Your task to perform on an android device: Open Google Maps Image 0: 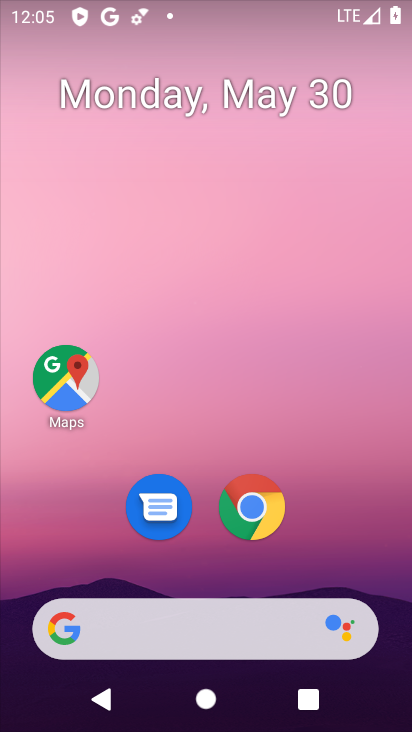
Step 0: drag from (324, 557) to (306, 69)
Your task to perform on an android device: Open Google Maps Image 1: 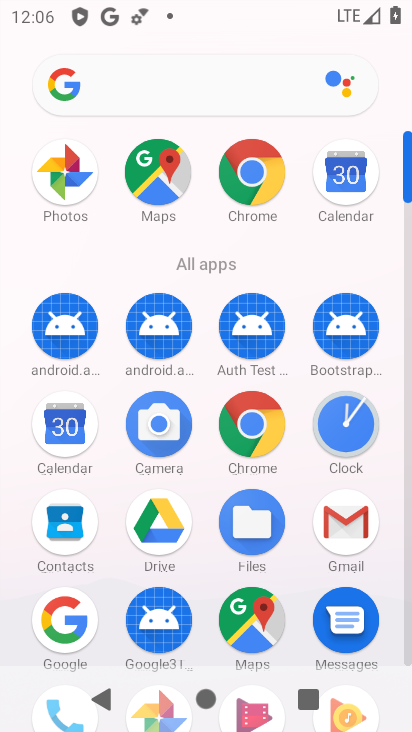
Step 1: drag from (193, 303) to (182, 22)
Your task to perform on an android device: Open Google Maps Image 2: 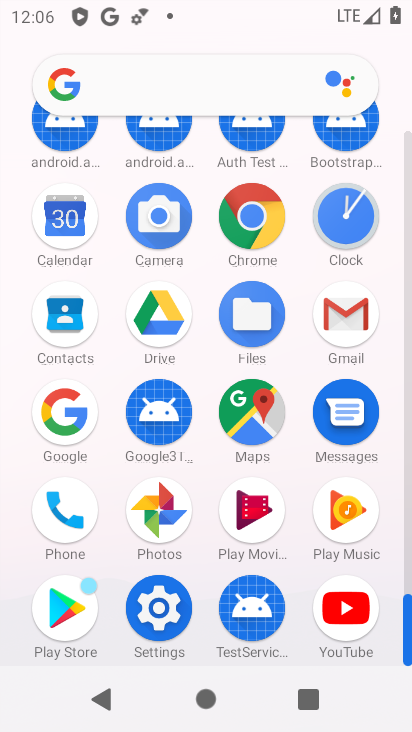
Step 2: click (239, 419)
Your task to perform on an android device: Open Google Maps Image 3: 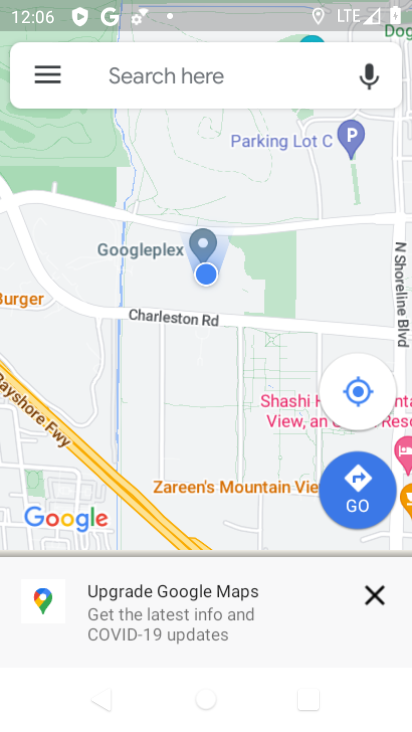
Step 3: click (374, 593)
Your task to perform on an android device: Open Google Maps Image 4: 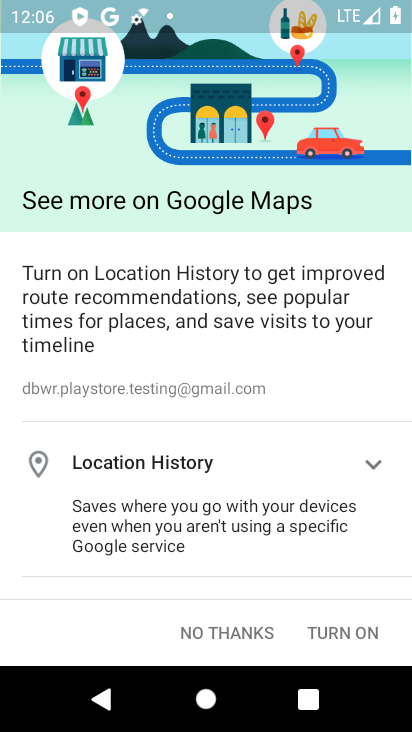
Step 4: click (239, 632)
Your task to perform on an android device: Open Google Maps Image 5: 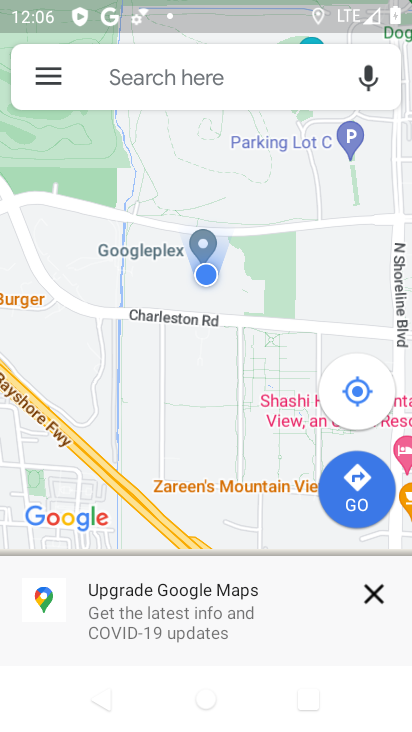
Step 5: task complete